Your task to perform on an android device: Go to Yahoo.com Image 0: 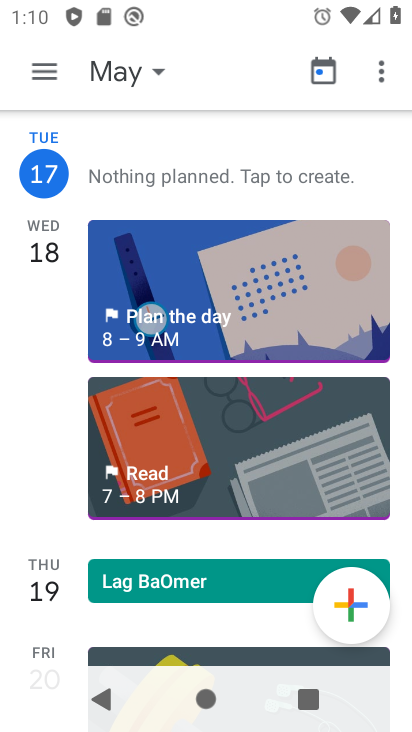
Step 0: press home button
Your task to perform on an android device: Go to Yahoo.com Image 1: 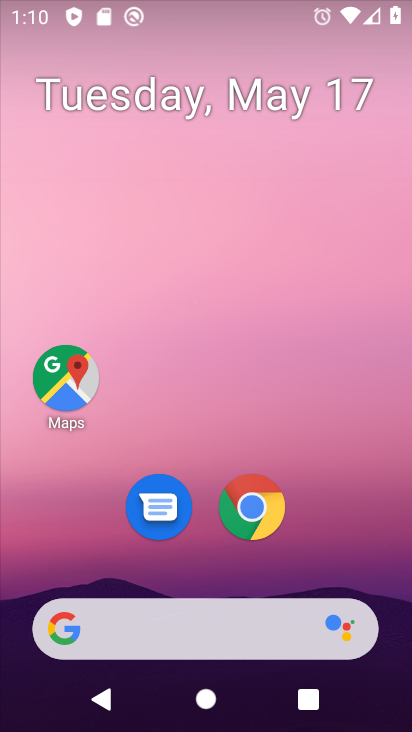
Step 1: drag from (260, 470) to (260, 221)
Your task to perform on an android device: Go to Yahoo.com Image 2: 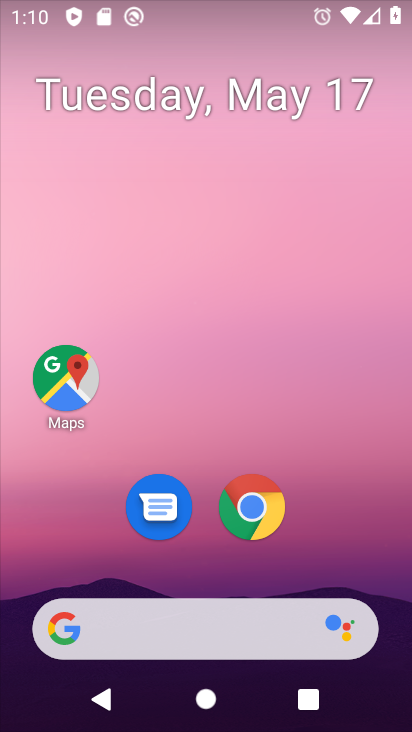
Step 2: click (248, 484)
Your task to perform on an android device: Go to Yahoo.com Image 3: 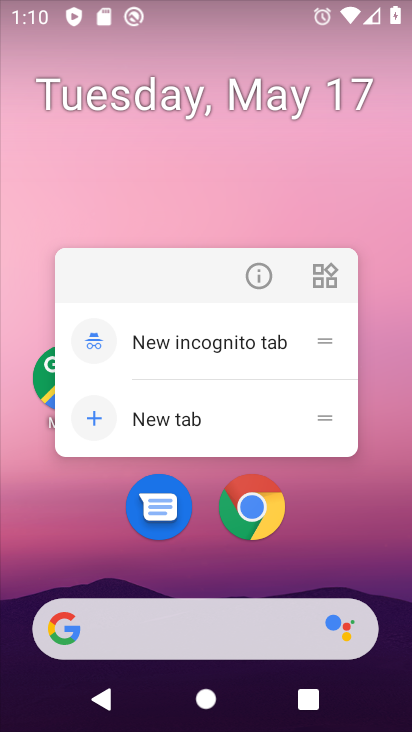
Step 3: click (257, 503)
Your task to perform on an android device: Go to Yahoo.com Image 4: 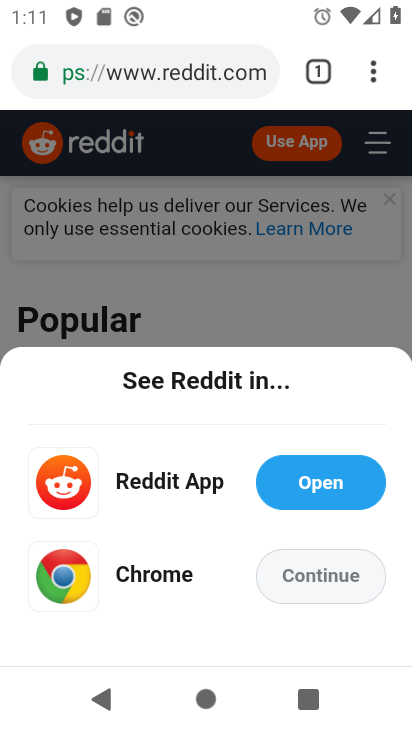
Step 4: click (358, 77)
Your task to perform on an android device: Go to Yahoo.com Image 5: 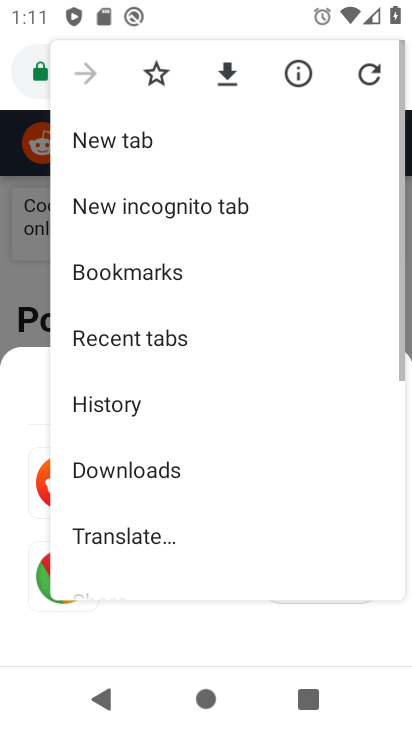
Step 5: click (165, 131)
Your task to perform on an android device: Go to Yahoo.com Image 6: 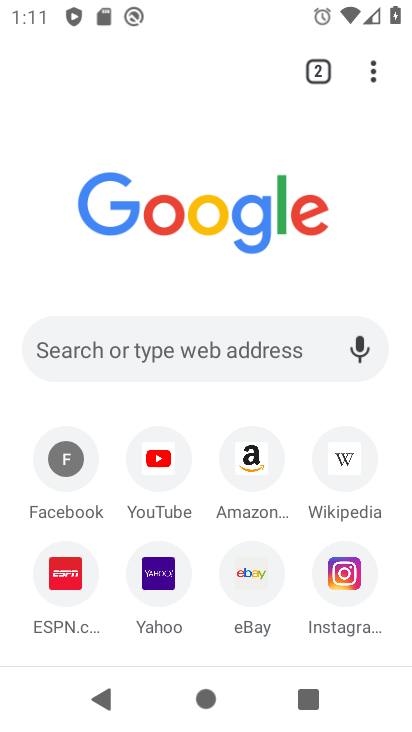
Step 6: click (145, 564)
Your task to perform on an android device: Go to Yahoo.com Image 7: 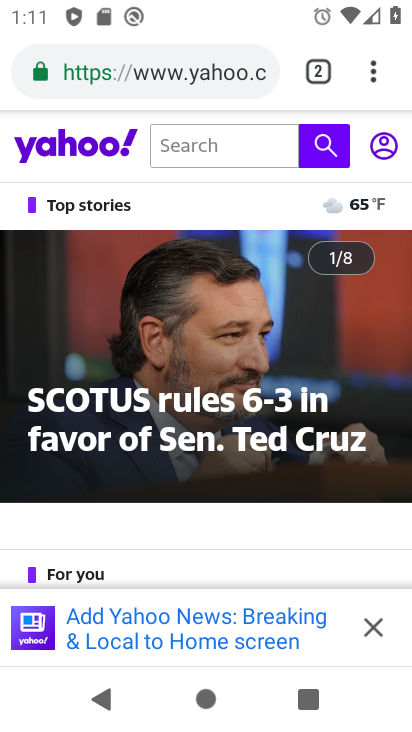
Step 7: click (145, 564)
Your task to perform on an android device: Go to Yahoo.com Image 8: 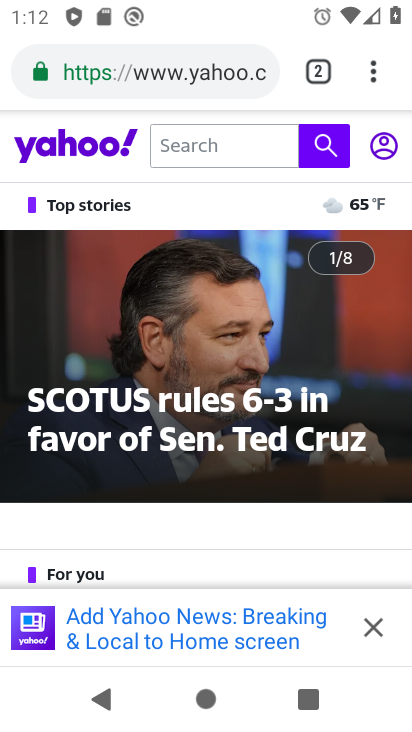
Step 8: task complete